Your task to perform on an android device: Go to wifi settings Image 0: 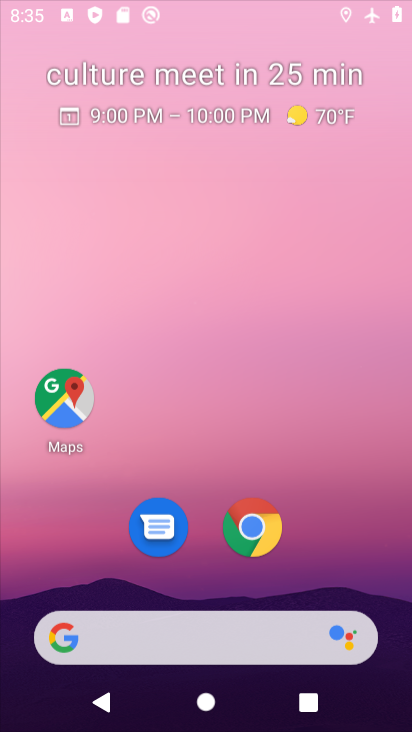
Step 0: press home button
Your task to perform on an android device: Go to wifi settings Image 1: 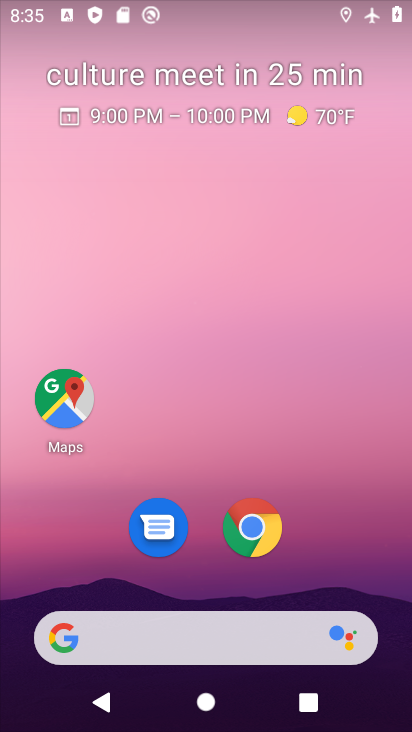
Step 1: drag from (234, 559) to (252, 450)
Your task to perform on an android device: Go to wifi settings Image 2: 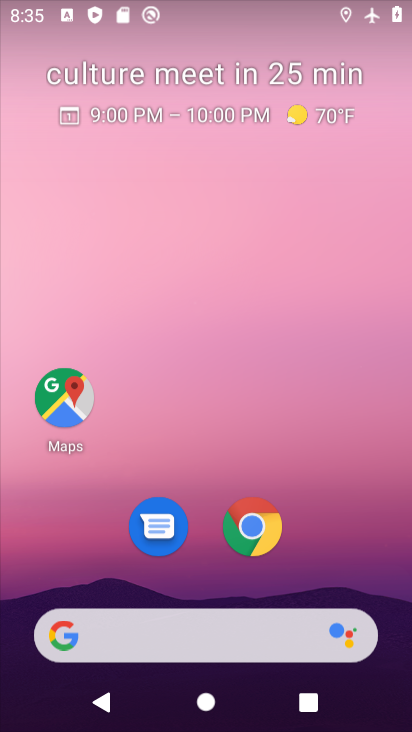
Step 2: drag from (264, 119) to (264, 22)
Your task to perform on an android device: Go to wifi settings Image 3: 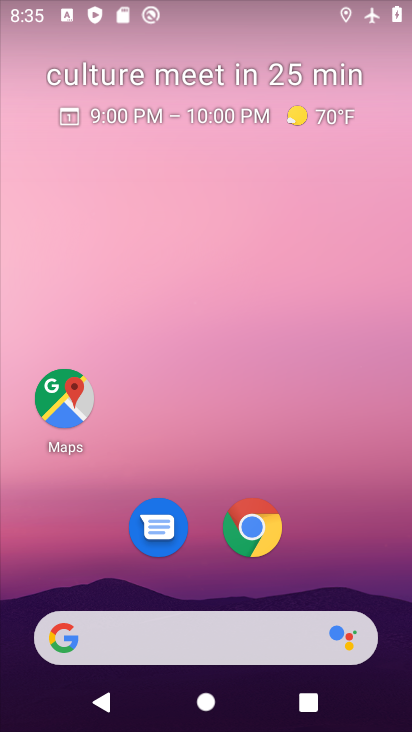
Step 3: drag from (249, 603) to (335, 31)
Your task to perform on an android device: Go to wifi settings Image 4: 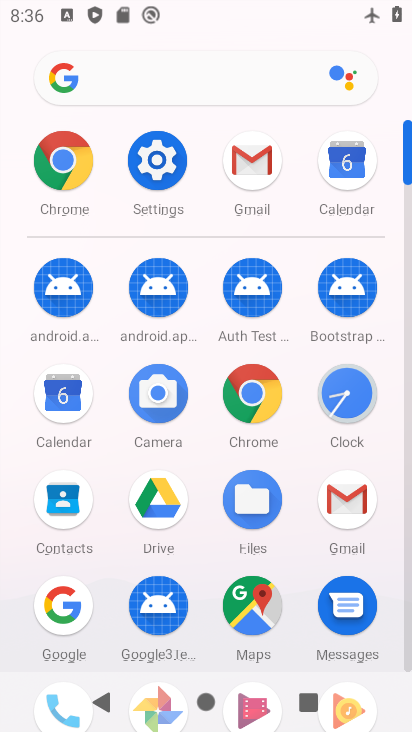
Step 4: click (162, 176)
Your task to perform on an android device: Go to wifi settings Image 5: 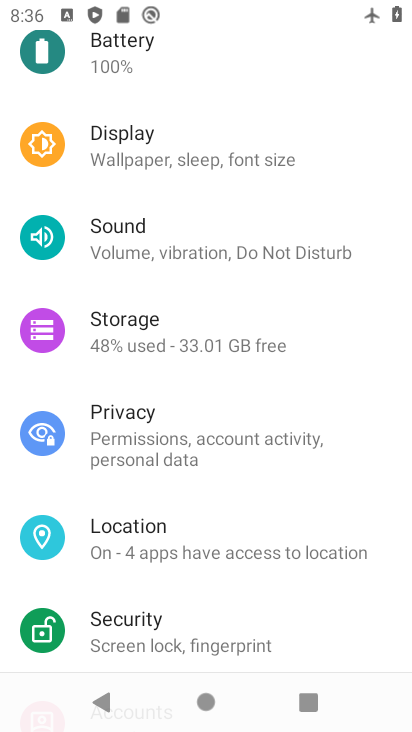
Step 5: drag from (208, 249) to (290, 659)
Your task to perform on an android device: Go to wifi settings Image 6: 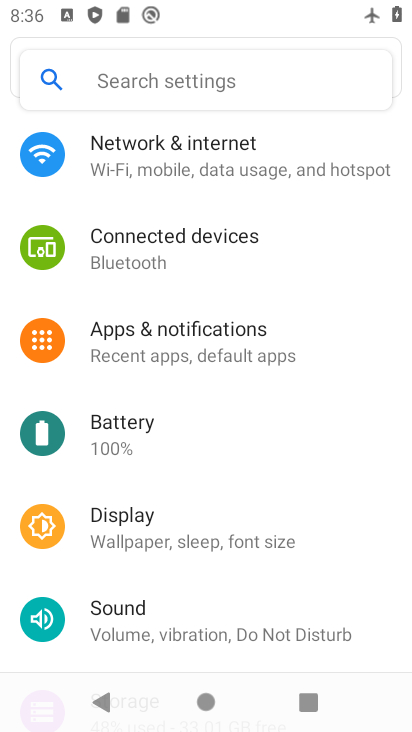
Step 6: drag from (220, 299) to (225, 533)
Your task to perform on an android device: Go to wifi settings Image 7: 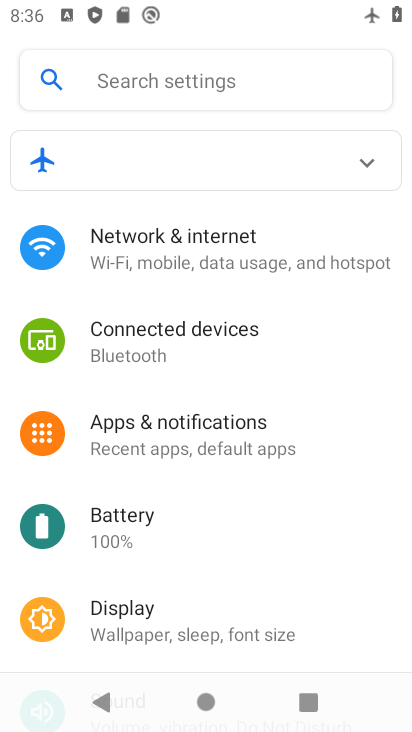
Step 7: click (229, 258)
Your task to perform on an android device: Go to wifi settings Image 8: 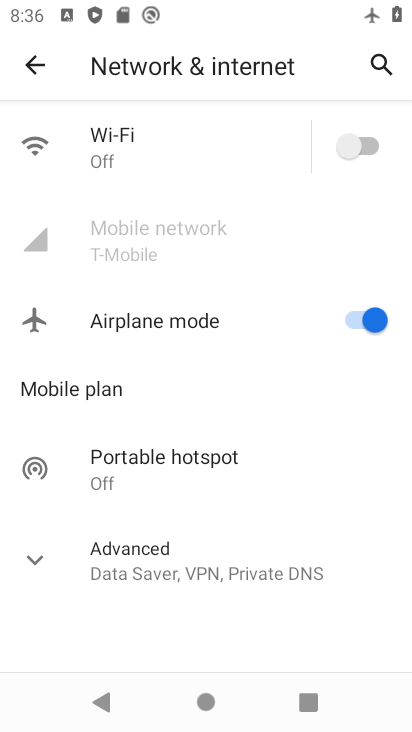
Step 8: click (180, 141)
Your task to perform on an android device: Go to wifi settings Image 9: 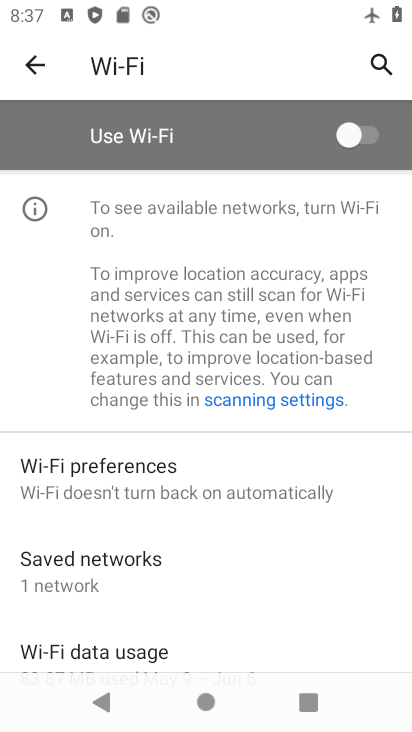
Step 9: task complete